Your task to perform on an android device: Open Google Chrome and open the bookmarks view Image 0: 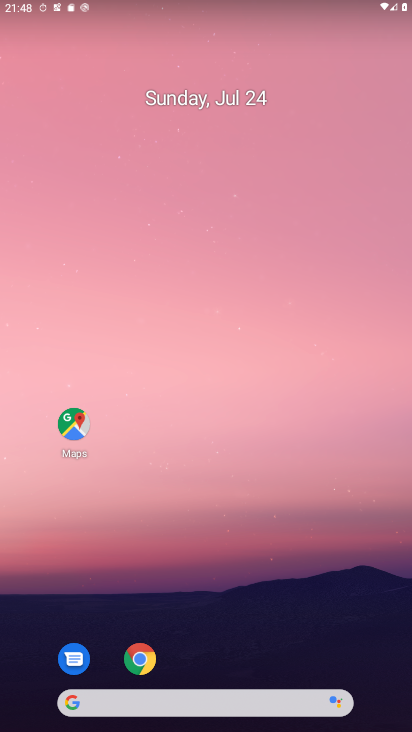
Step 0: drag from (197, 720) to (213, 85)
Your task to perform on an android device: Open Google Chrome and open the bookmarks view Image 1: 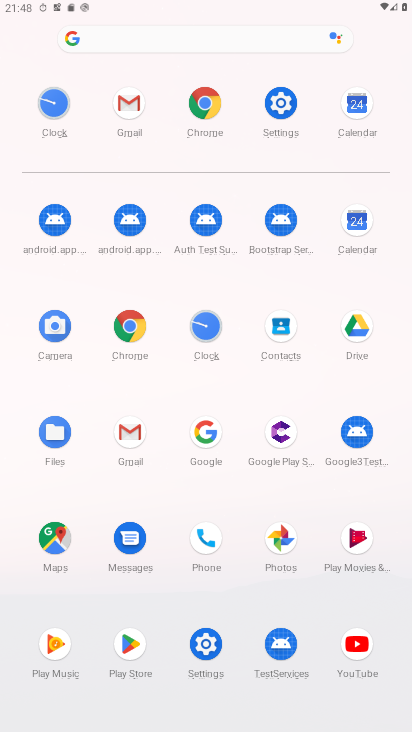
Step 1: click (130, 324)
Your task to perform on an android device: Open Google Chrome and open the bookmarks view Image 2: 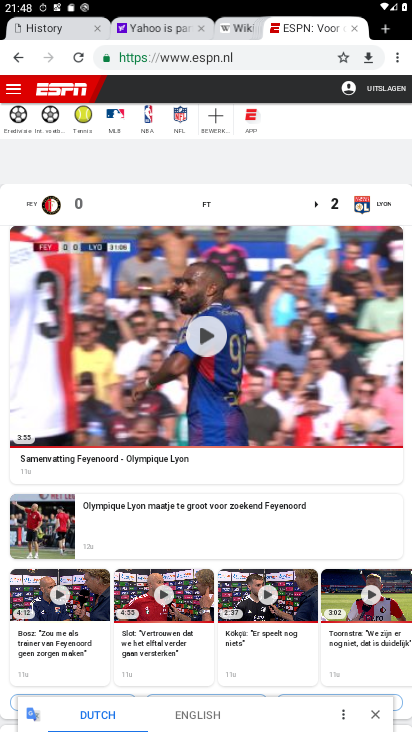
Step 2: click (397, 57)
Your task to perform on an android device: Open Google Chrome and open the bookmarks view Image 3: 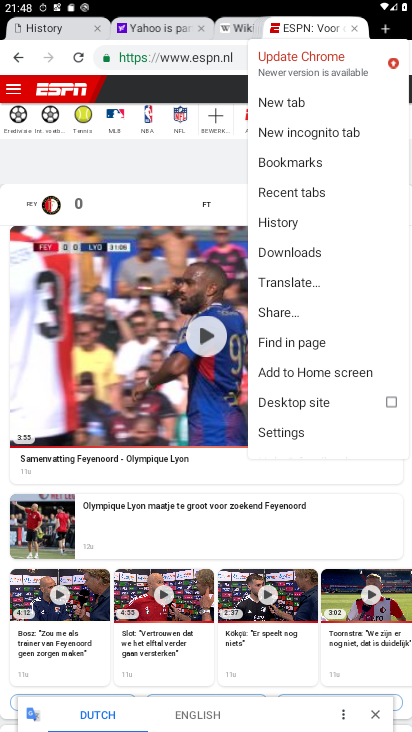
Step 3: click (302, 160)
Your task to perform on an android device: Open Google Chrome and open the bookmarks view Image 4: 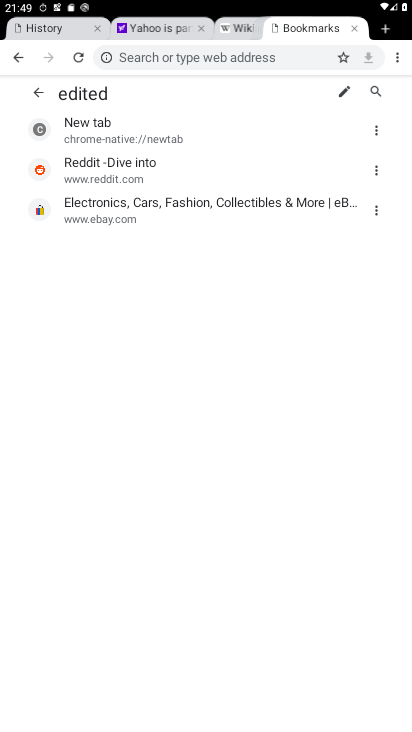
Step 4: task complete